Your task to perform on an android device: Open accessibility settings Image 0: 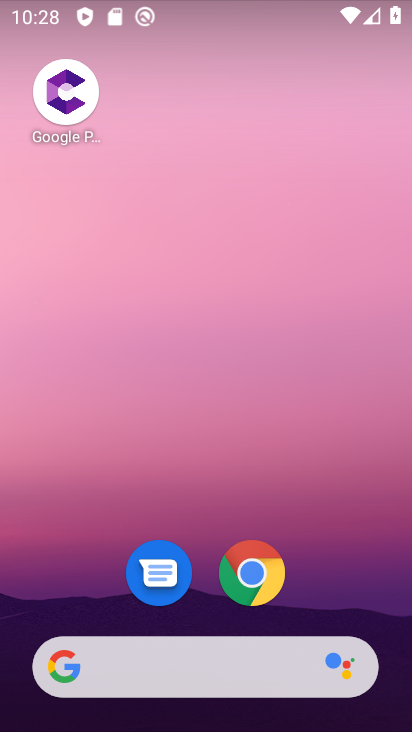
Step 0: drag from (233, 675) to (243, 2)
Your task to perform on an android device: Open accessibility settings Image 1: 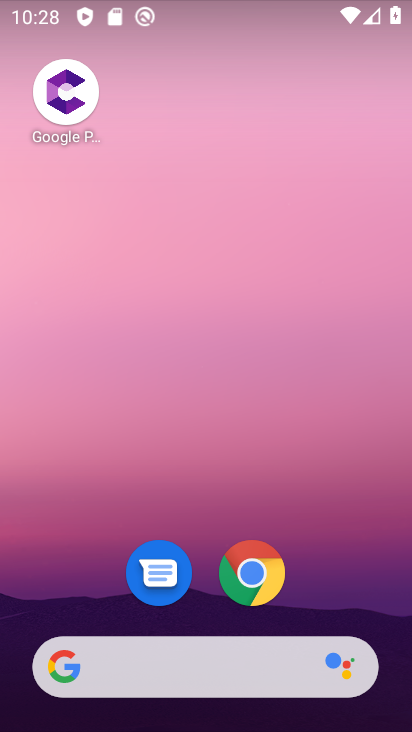
Step 1: drag from (332, 626) to (328, 15)
Your task to perform on an android device: Open accessibility settings Image 2: 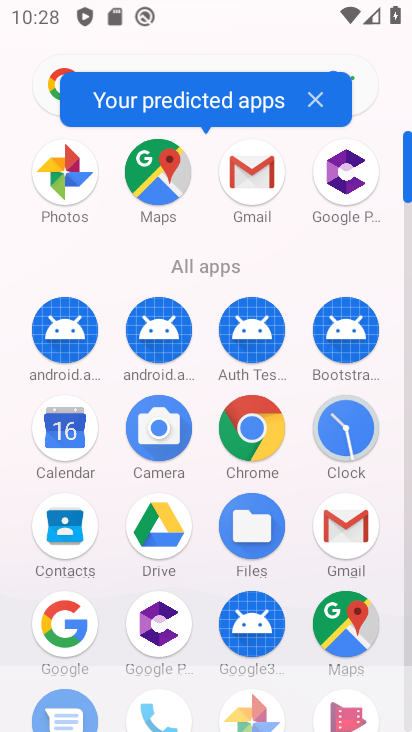
Step 2: drag from (261, 662) to (304, 255)
Your task to perform on an android device: Open accessibility settings Image 3: 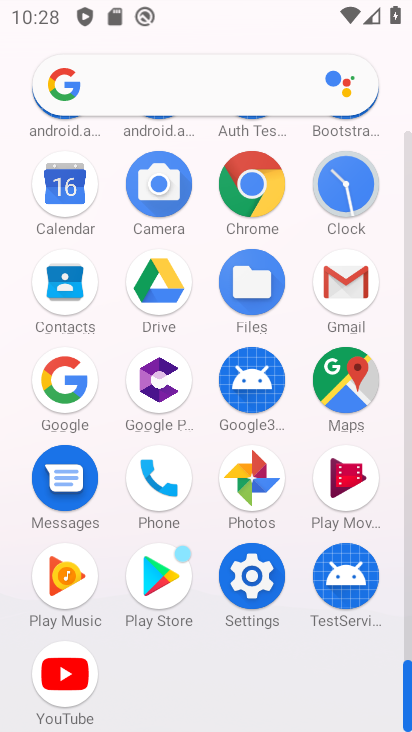
Step 3: click (241, 598)
Your task to perform on an android device: Open accessibility settings Image 4: 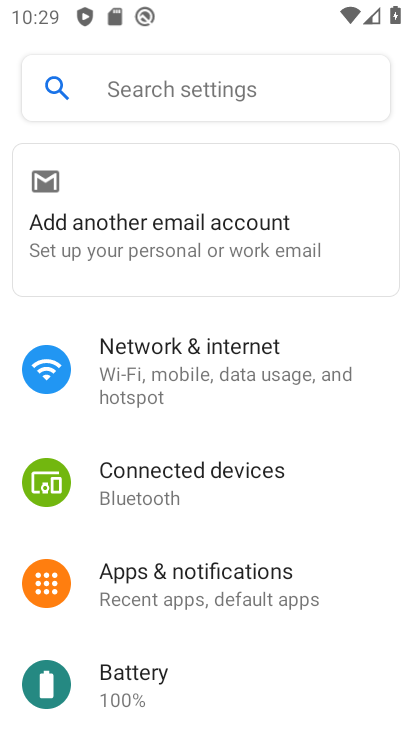
Step 4: drag from (294, 639) to (346, 6)
Your task to perform on an android device: Open accessibility settings Image 5: 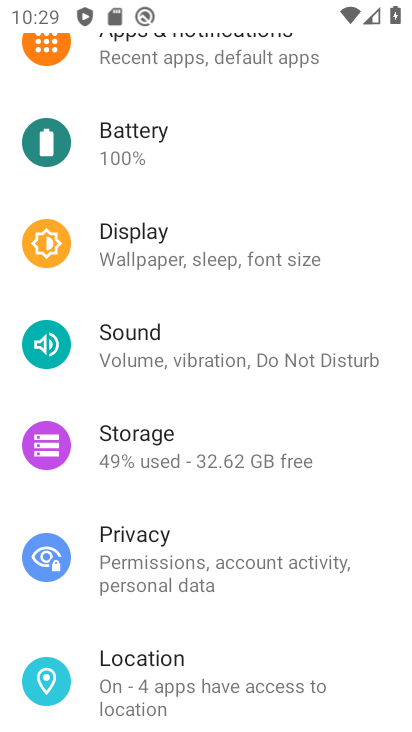
Step 5: drag from (368, 331) to (390, 0)
Your task to perform on an android device: Open accessibility settings Image 6: 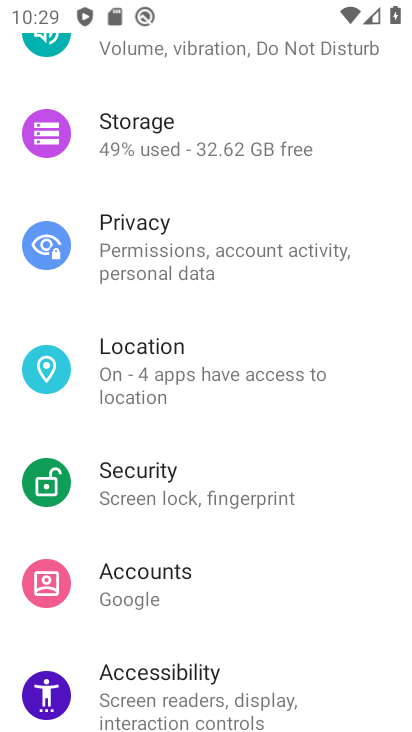
Step 6: click (172, 686)
Your task to perform on an android device: Open accessibility settings Image 7: 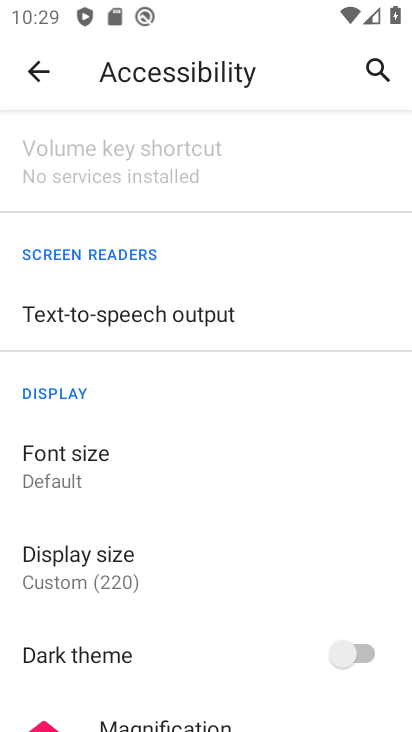
Step 7: task complete